Your task to perform on an android device: Set the phone to "Do not disturb". Image 0: 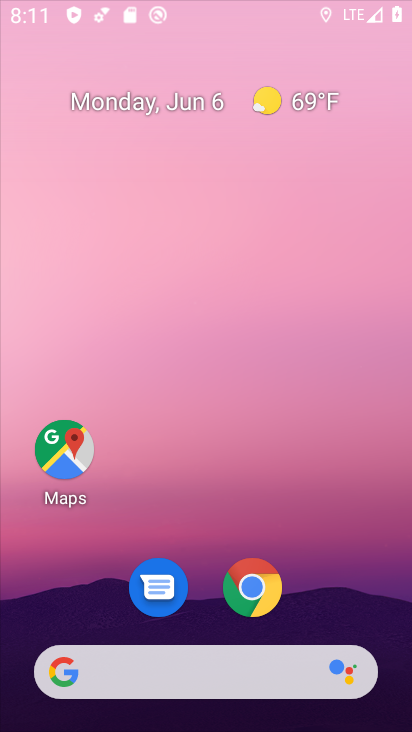
Step 0: drag from (311, 528) to (290, 151)
Your task to perform on an android device: Set the phone to "Do not disturb". Image 1: 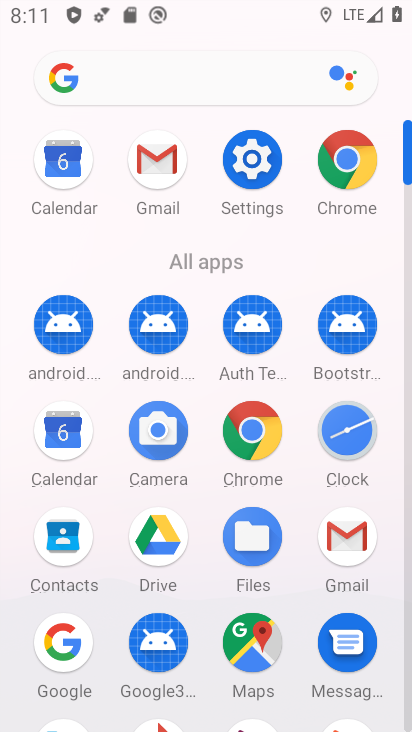
Step 1: click (337, 422)
Your task to perform on an android device: Set the phone to "Do not disturb". Image 2: 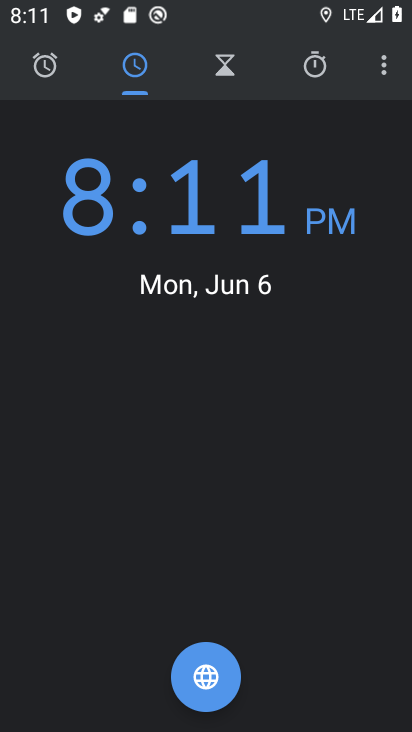
Step 2: drag from (258, 5) to (211, 490)
Your task to perform on an android device: Set the phone to "Do not disturb". Image 3: 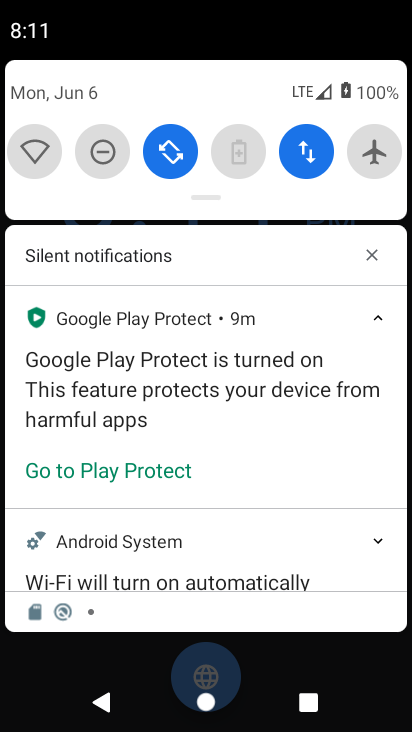
Step 3: click (112, 150)
Your task to perform on an android device: Set the phone to "Do not disturb". Image 4: 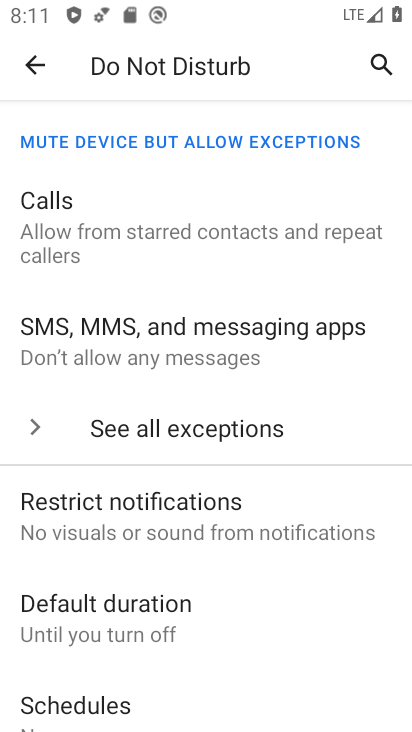
Step 4: drag from (276, 570) to (250, 80)
Your task to perform on an android device: Set the phone to "Do not disturb". Image 5: 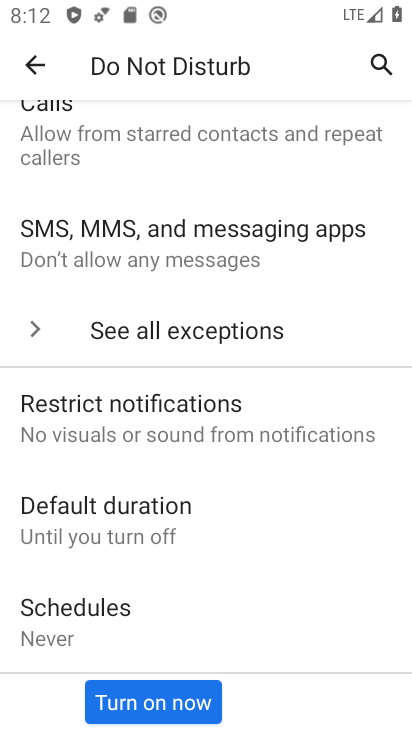
Step 5: click (179, 697)
Your task to perform on an android device: Set the phone to "Do not disturb". Image 6: 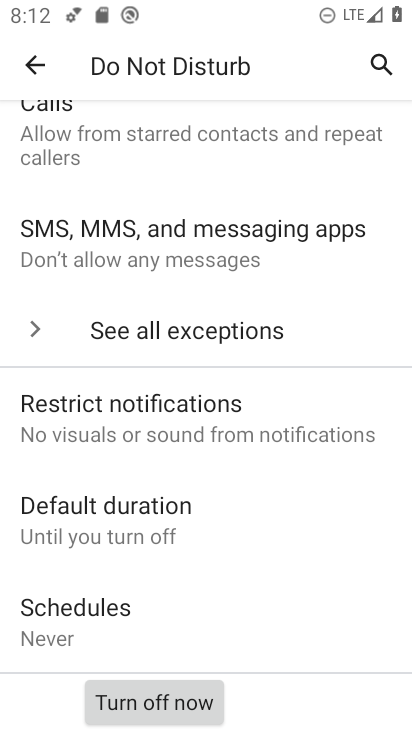
Step 6: task complete